Your task to perform on an android device: Open privacy settings Image 0: 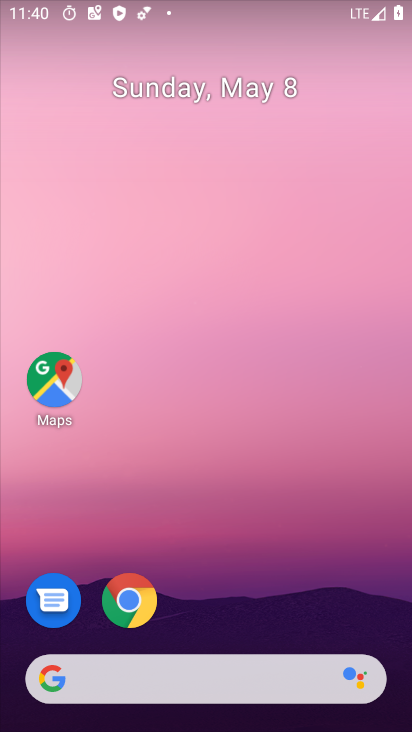
Step 0: drag from (195, 632) to (186, 216)
Your task to perform on an android device: Open privacy settings Image 1: 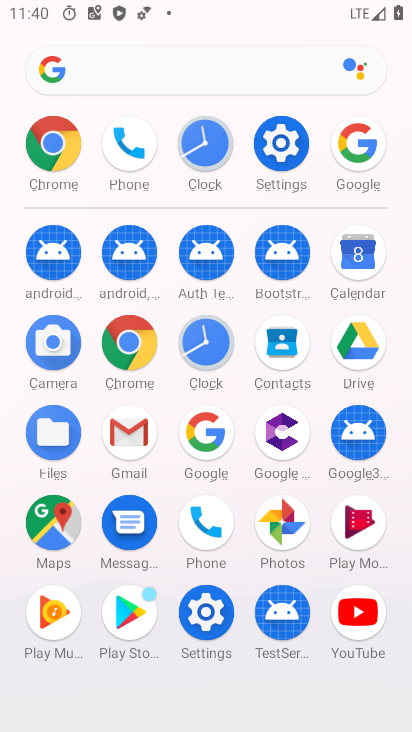
Step 1: click (276, 170)
Your task to perform on an android device: Open privacy settings Image 2: 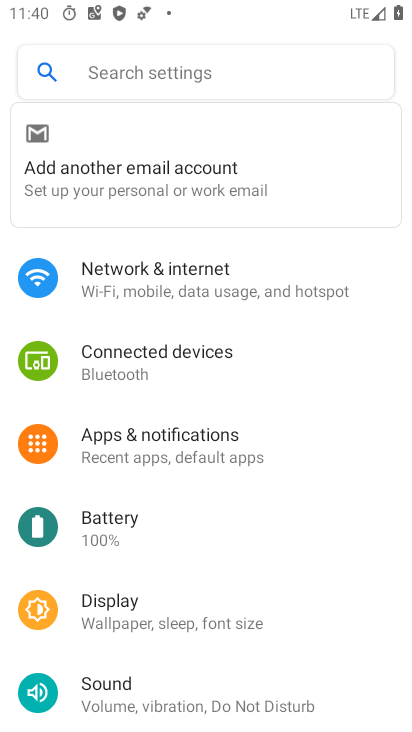
Step 2: drag from (150, 585) to (216, 285)
Your task to perform on an android device: Open privacy settings Image 3: 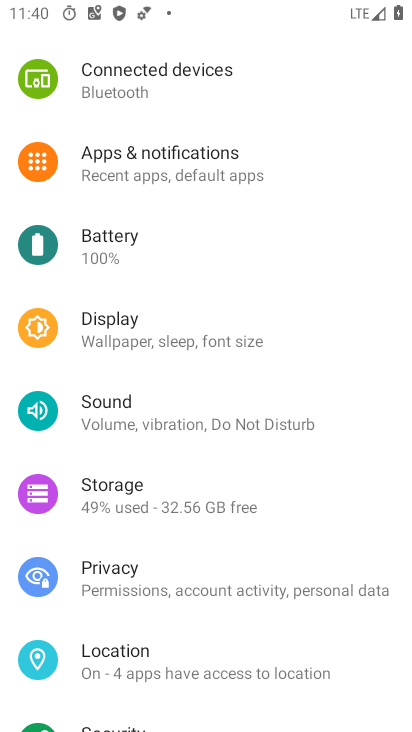
Step 3: click (153, 566)
Your task to perform on an android device: Open privacy settings Image 4: 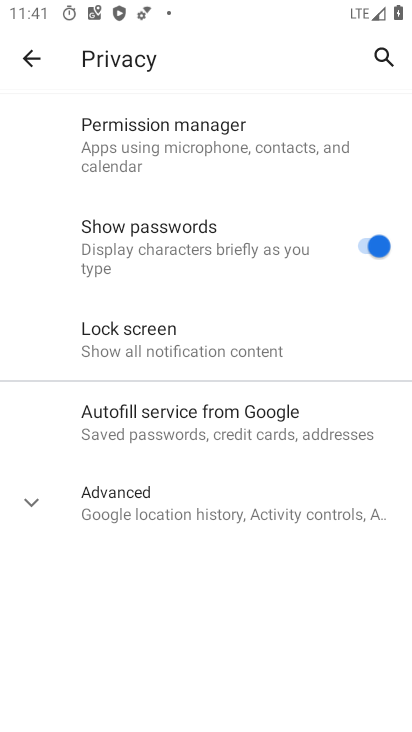
Step 4: task complete